Your task to perform on an android device: toggle wifi Image 0: 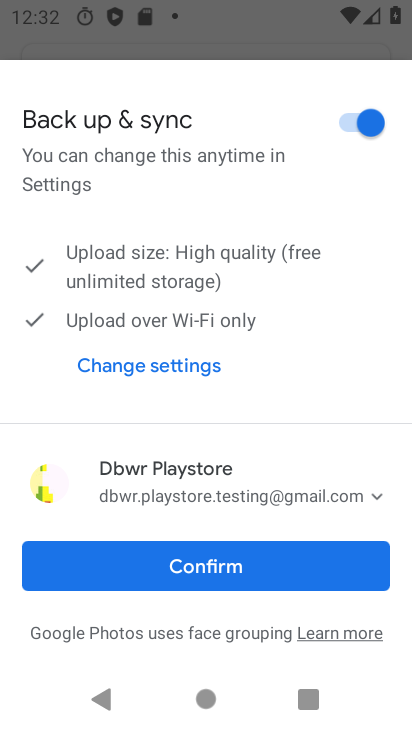
Step 0: press home button
Your task to perform on an android device: toggle wifi Image 1: 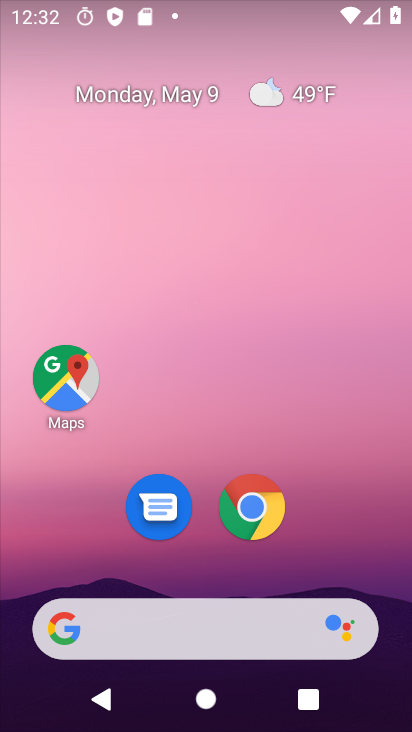
Step 1: drag from (225, 730) to (229, 205)
Your task to perform on an android device: toggle wifi Image 2: 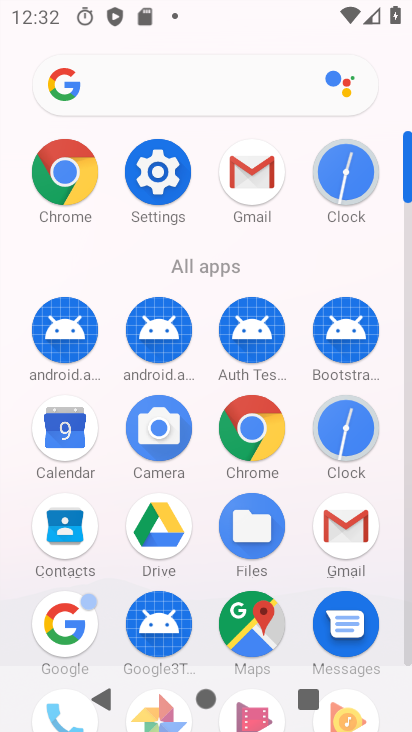
Step 2: click (156, 169)
Your task to perform on an android device: toggle wifi Image 3: 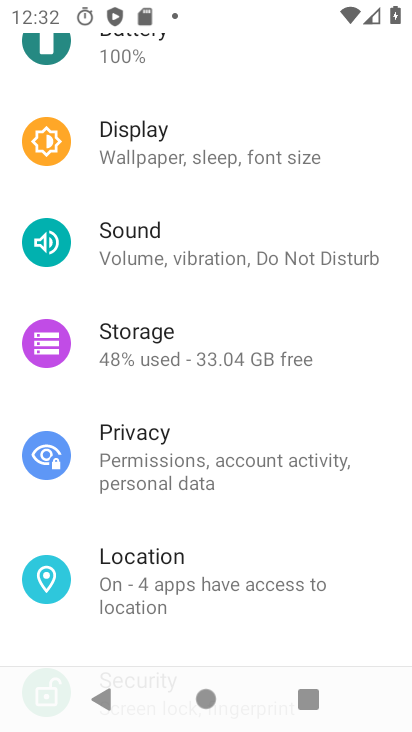
Step 3: drag from (354, 114) to (354, 528)
Your task to perform on an android device: toggle wifi Image 4: 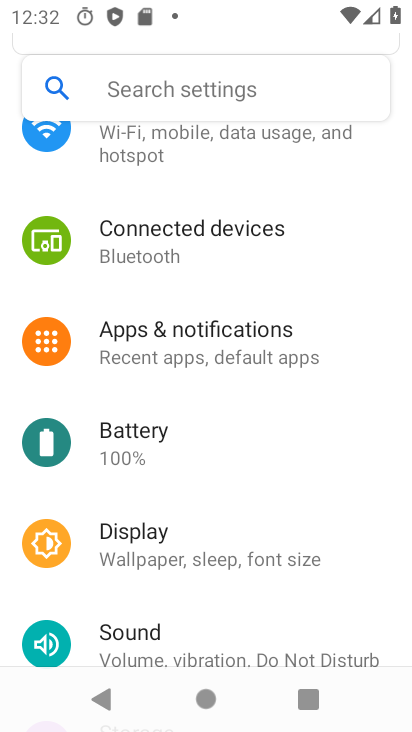
Step 4: drag from (347, 173) to (345, 540)
Your task to perform on an android device: toggle wifi Image 5: 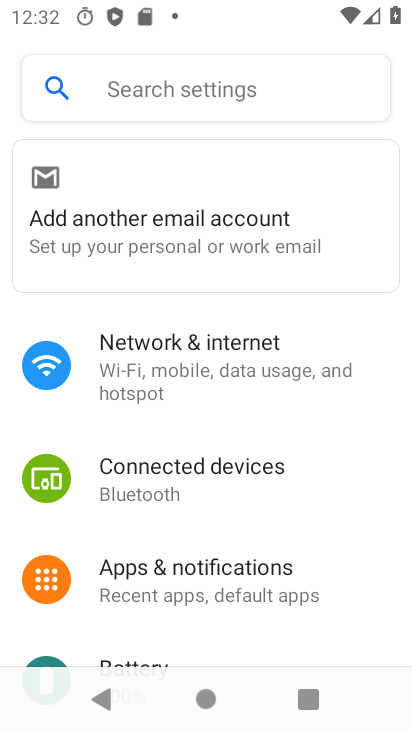
Step 5: click (185, 355)
Your task to perform on an android device: toggle wifi Image 6: 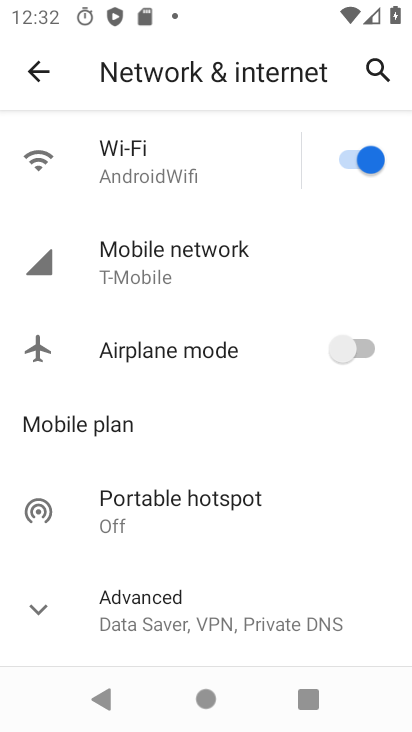
Step 6: click (345, 160)
Your task to perform on an android device: toggle wifi Image 7: 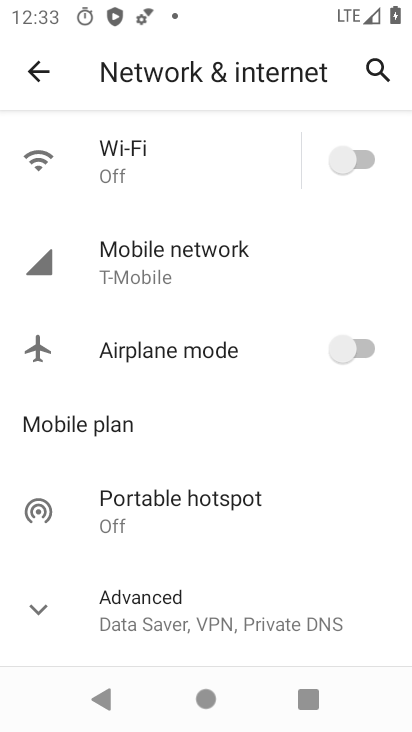
Step 7: task complete